Your task to perform on an android device: move a message to another label in the gmail app Image 0: 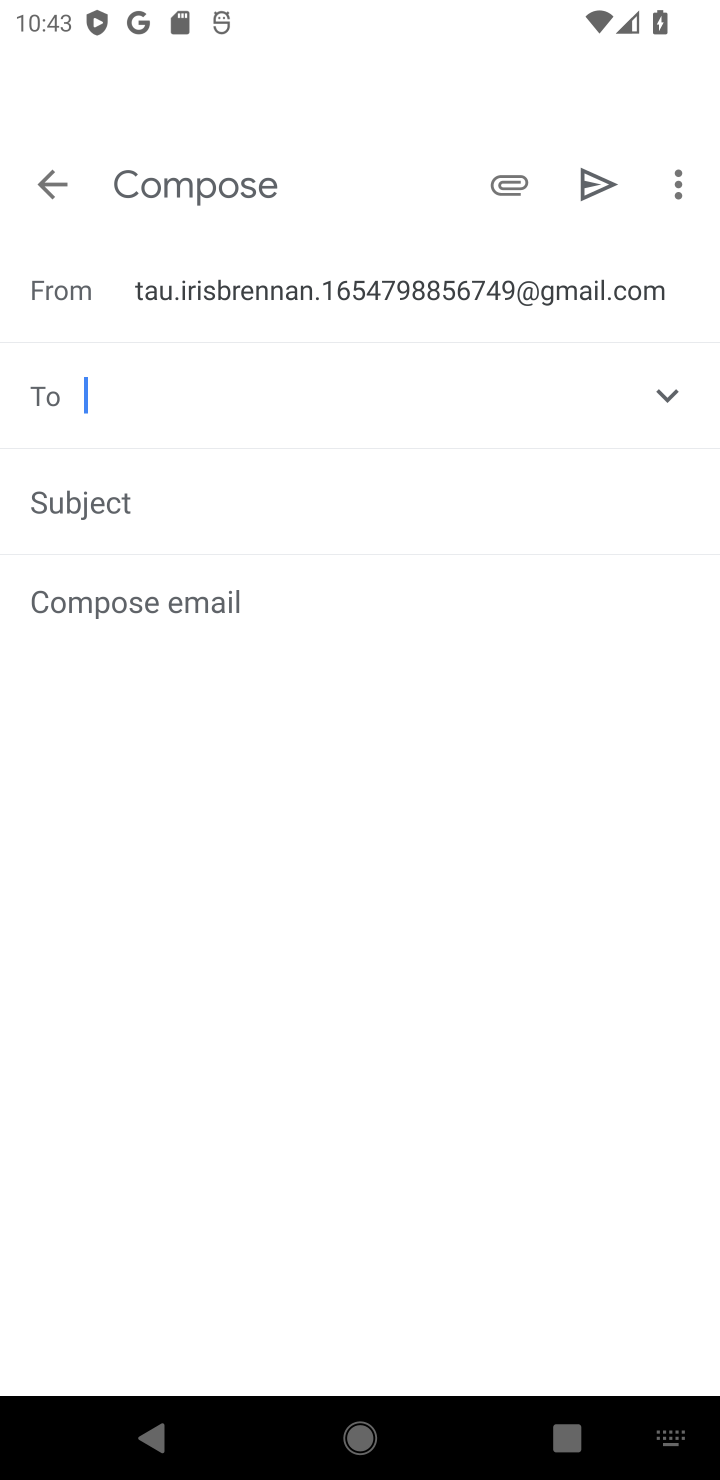
Step 0: press home button
Your task to perform on an android device: move a message to another label in the gmail app Image 1: 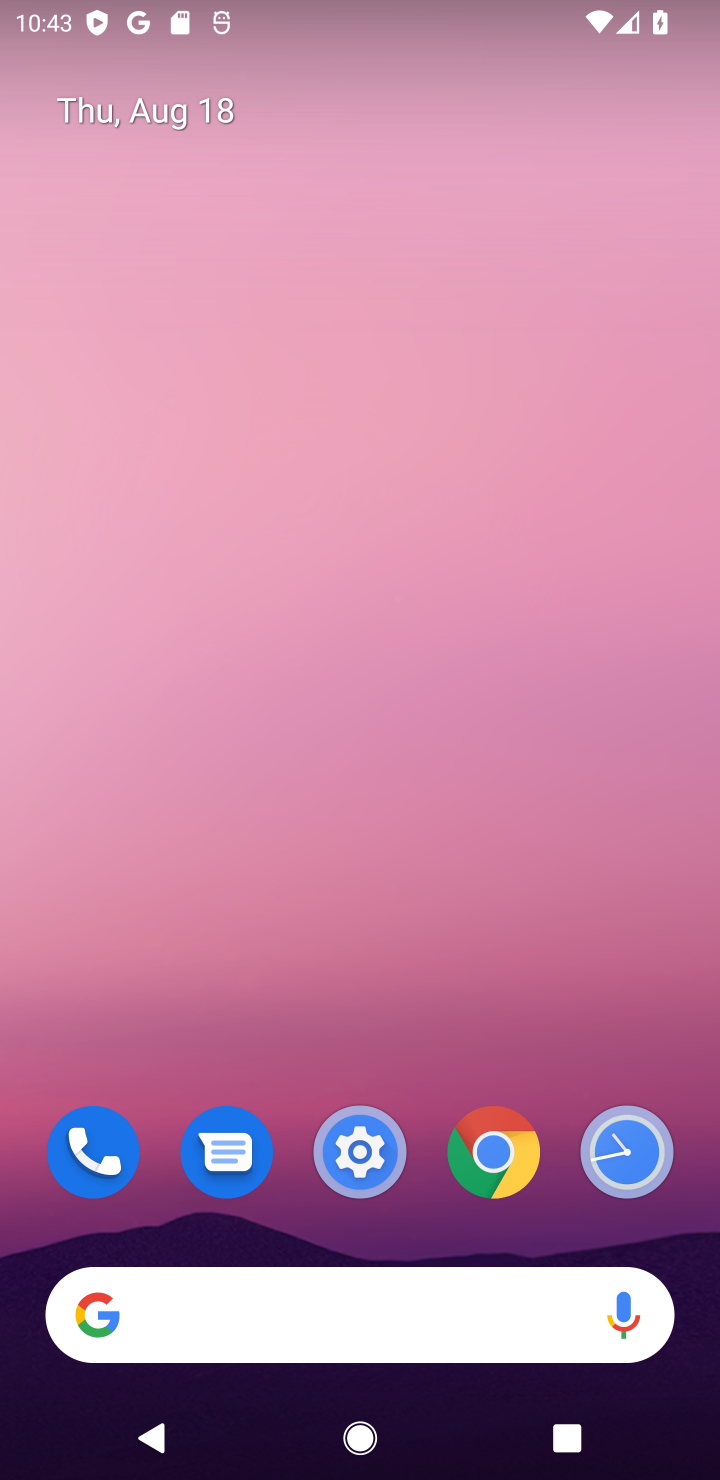
Step 1: drag from (461, 824) to (568, 2)
Your task to perform on an android device: move a message to another label in the gmail app Image 2: 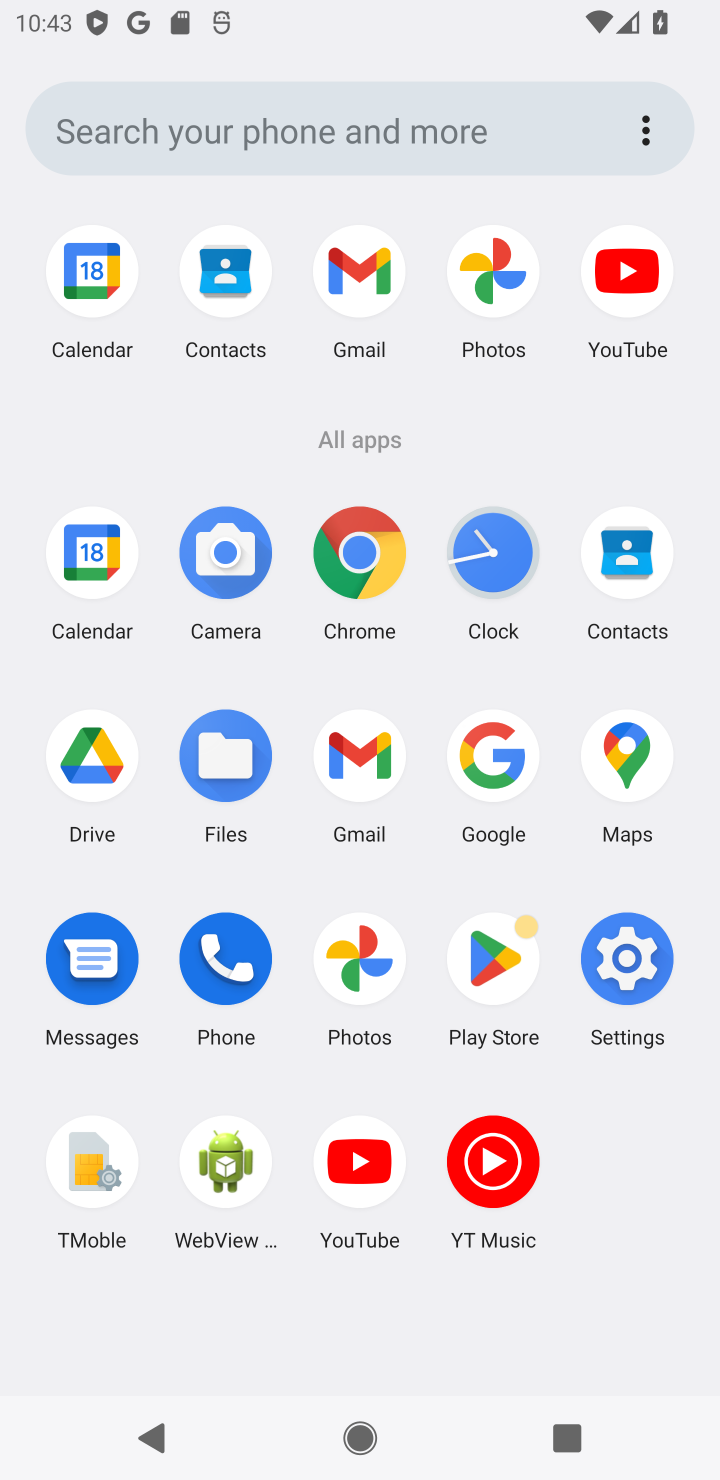
Step 2: click (374, 269)
Your task to perform on an android device: move a message to another label in the gmail app Image 3: 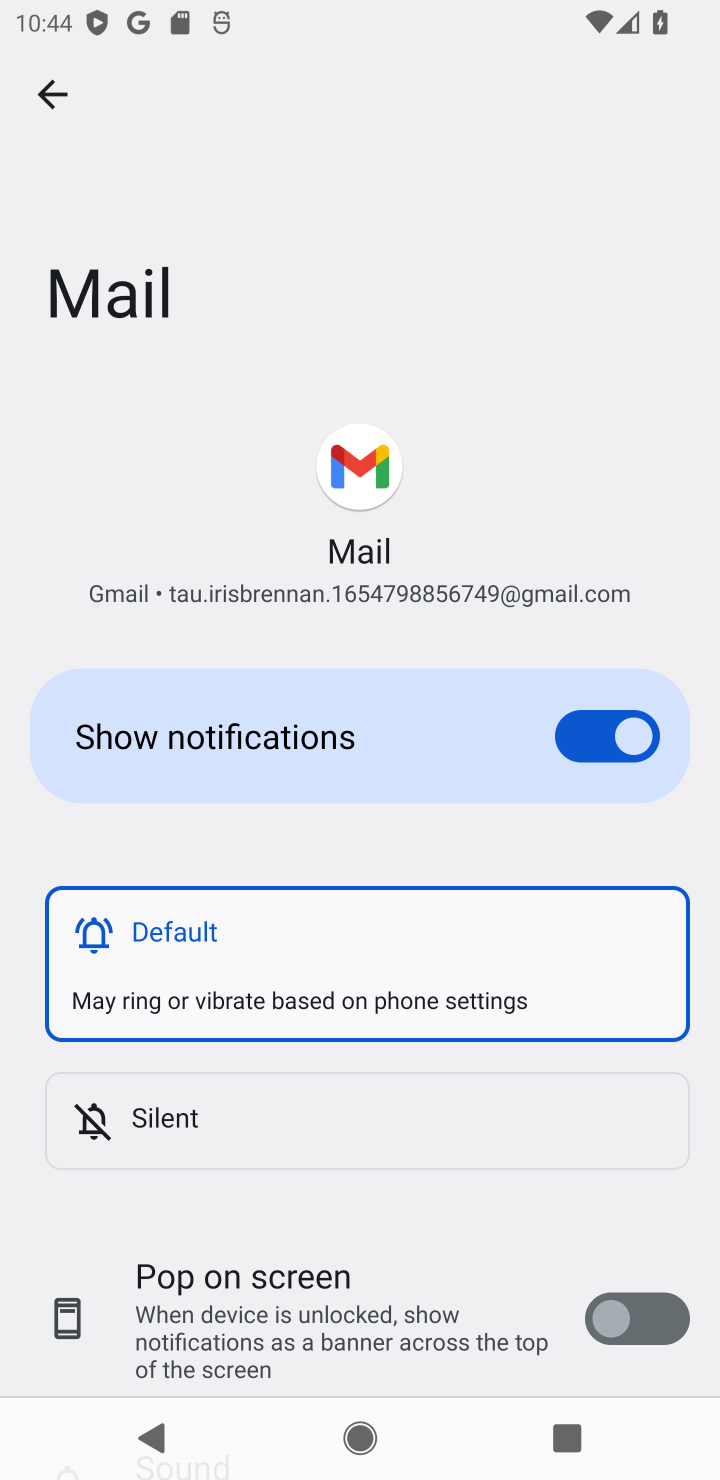
Step 3: click (56, 94)
Your task to perform on an android device: move a message to another label in the gmail app Image 4: 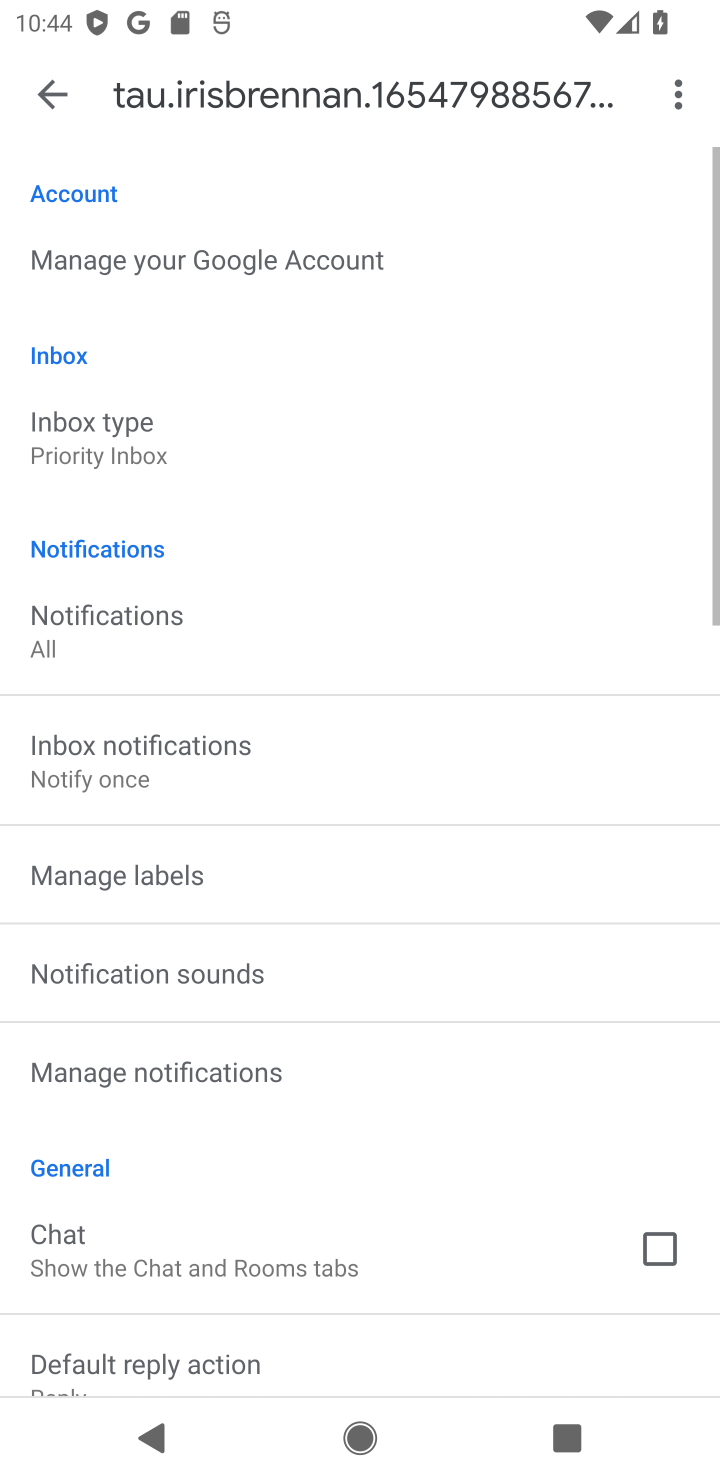
Step 4: click (56, 94)
Your task to perform on an android device: move a message to another label in the gmail app Image 5: 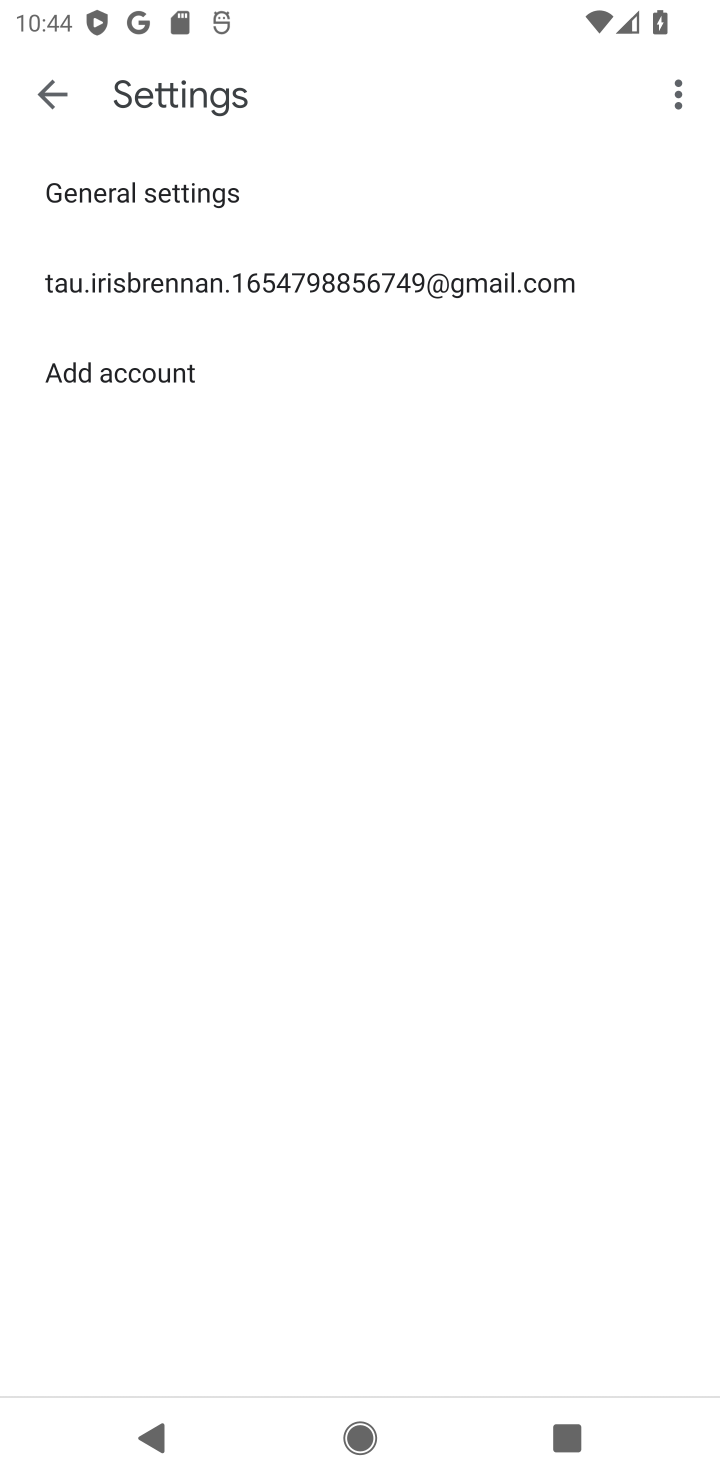
Step 5: click (56, 94)
Your task to perform on an android device: move a message to another label in the gmail app Image 6: 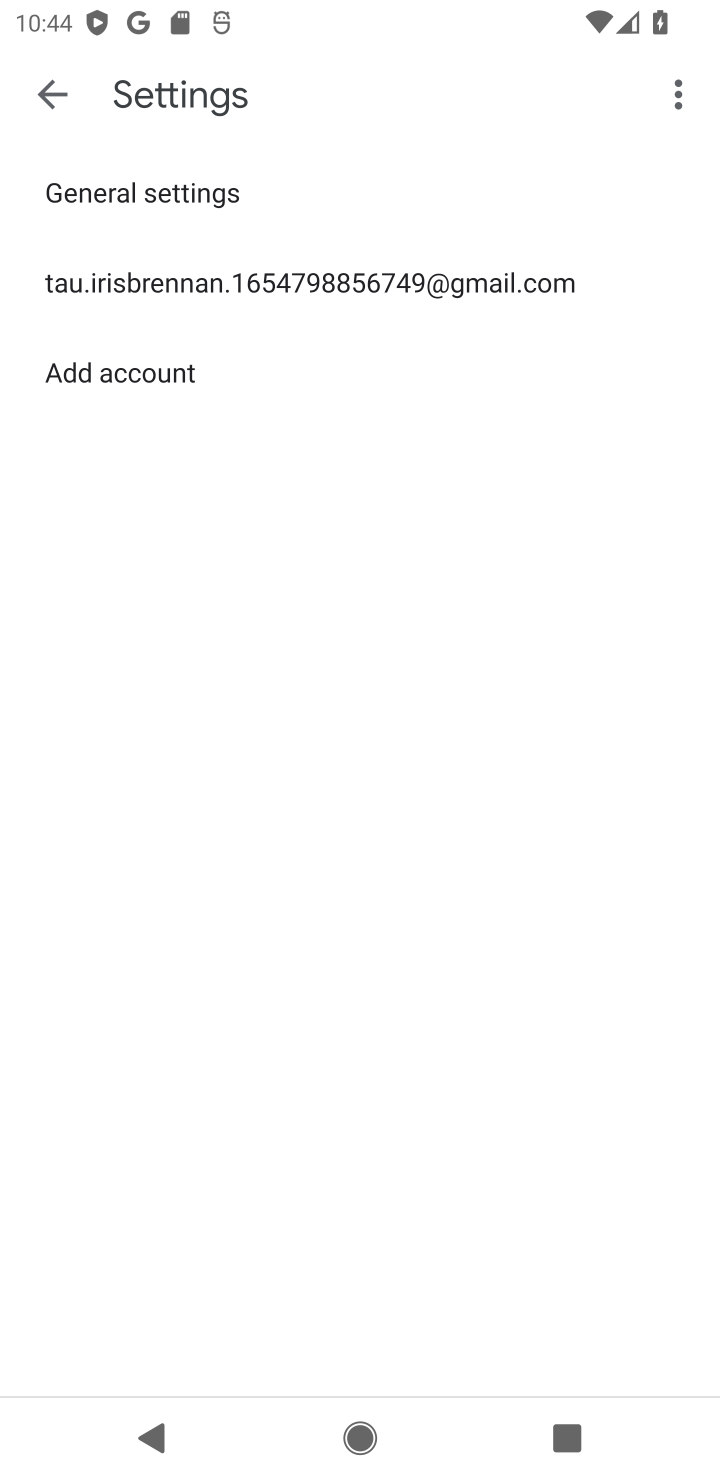
Step 6: click (49, 84)
Your task to perform on an android device: move a message to another label in the gmail app Image 7: 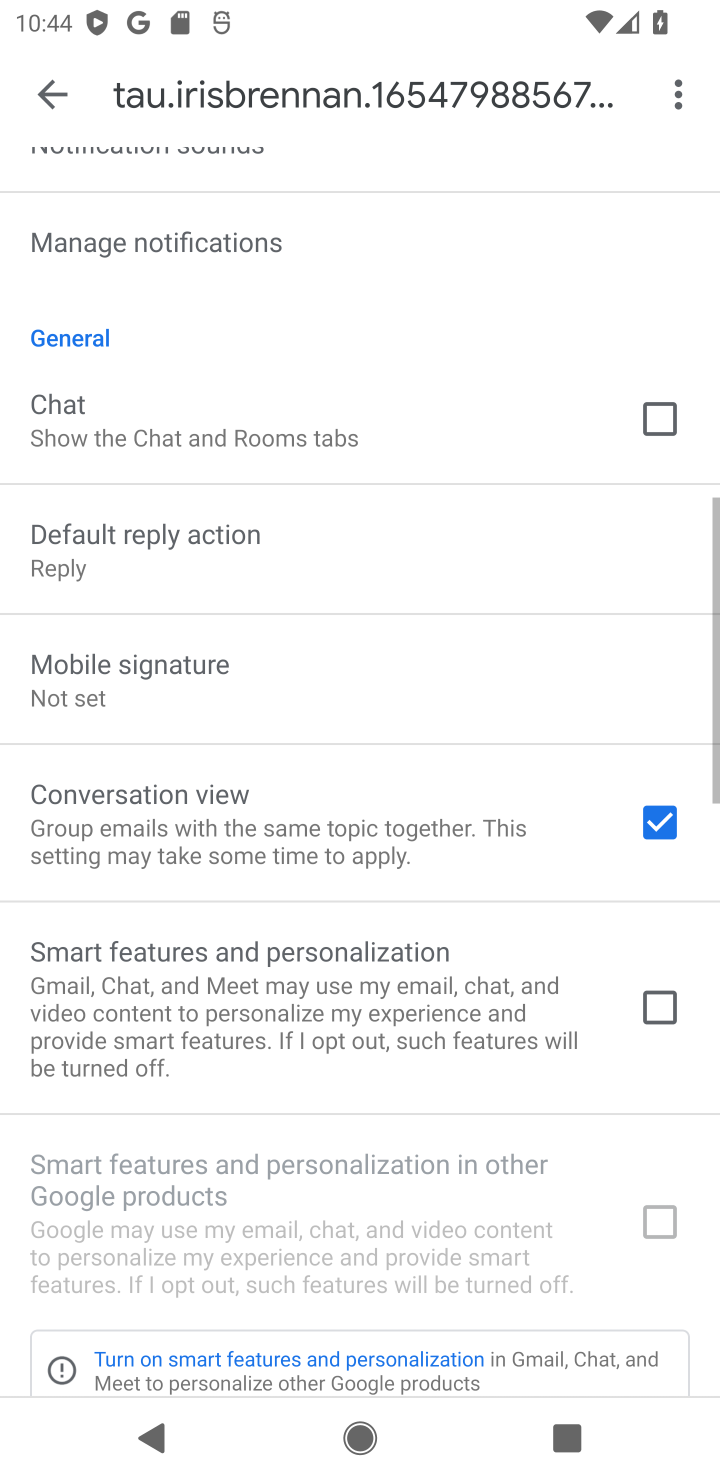
Step 7: click (49, 91)
Your task to perform on an android device: move a message to another label in the gmail app Image 8: 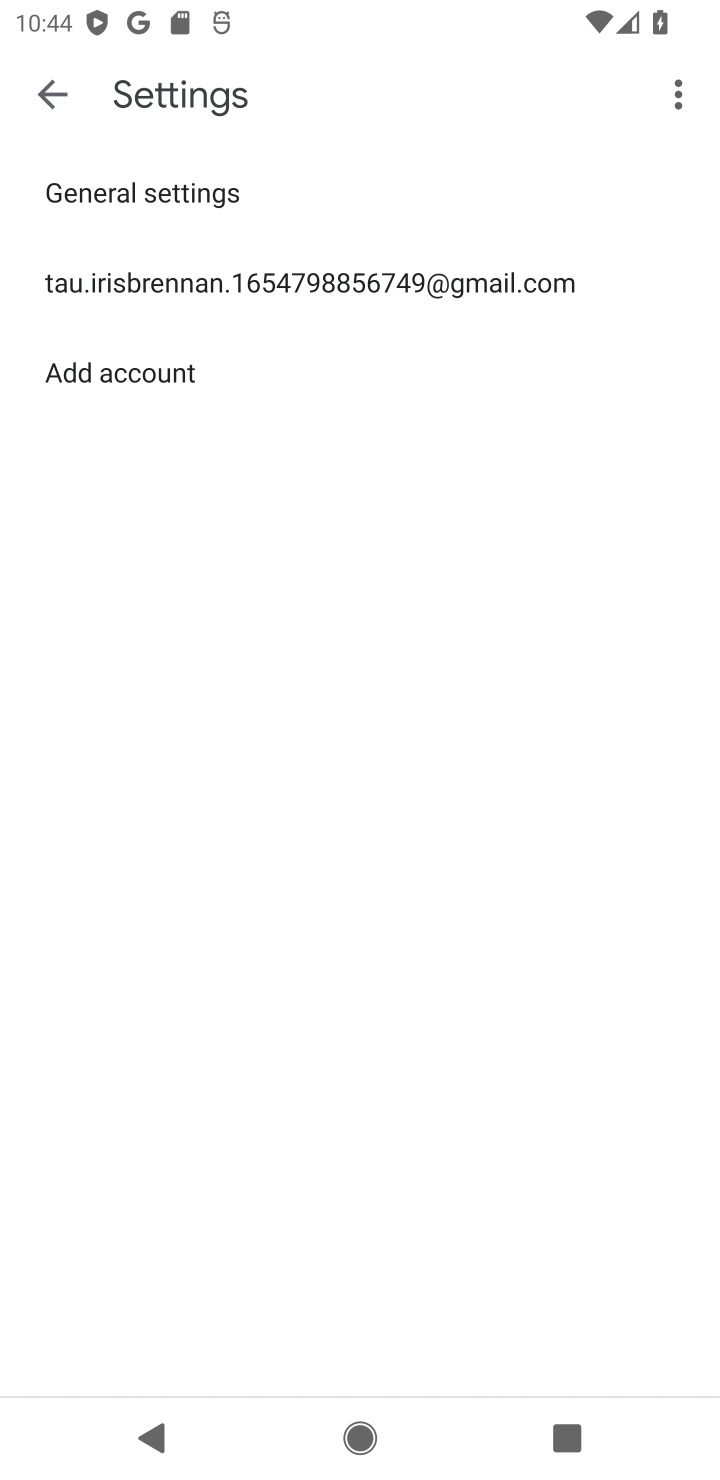
Step 8: click (54, 86)
Your task to perform on an android device: move a message to another label in the gmail app Image 9: 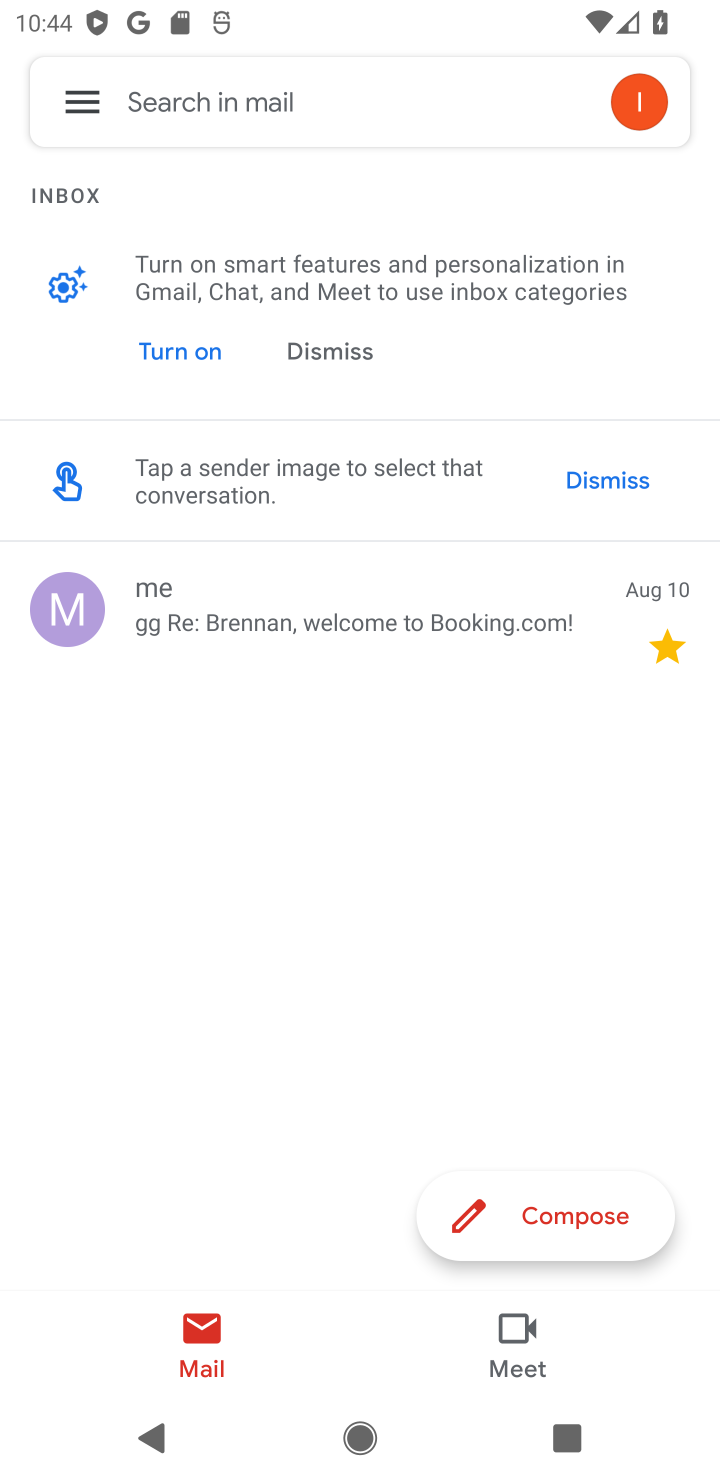
Step 9: click (312, 613)
Your task to perform on an android device: move a message to another label in the gmail app Image 10: 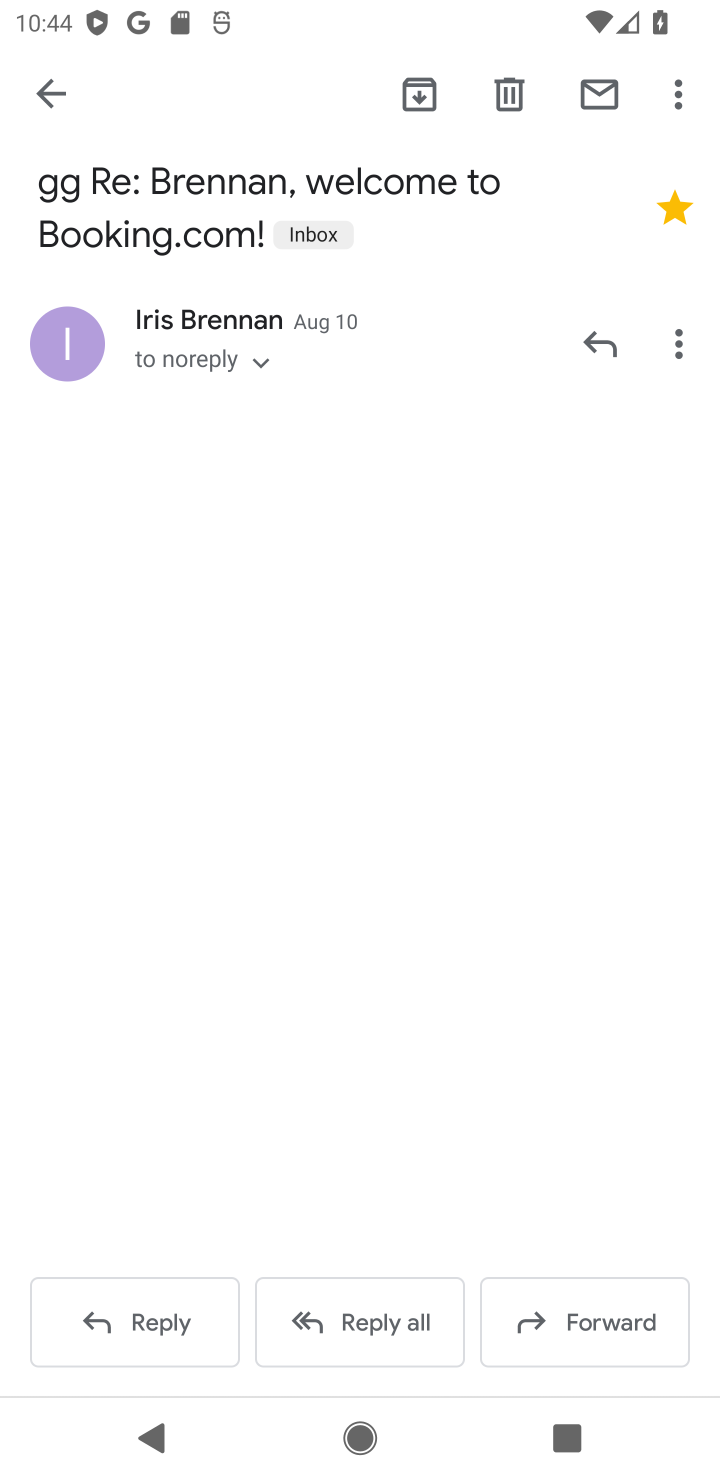
Step 10: click (683, 97)
Your task to perform on an android device: move a message to another label in the gmail app Image 11: 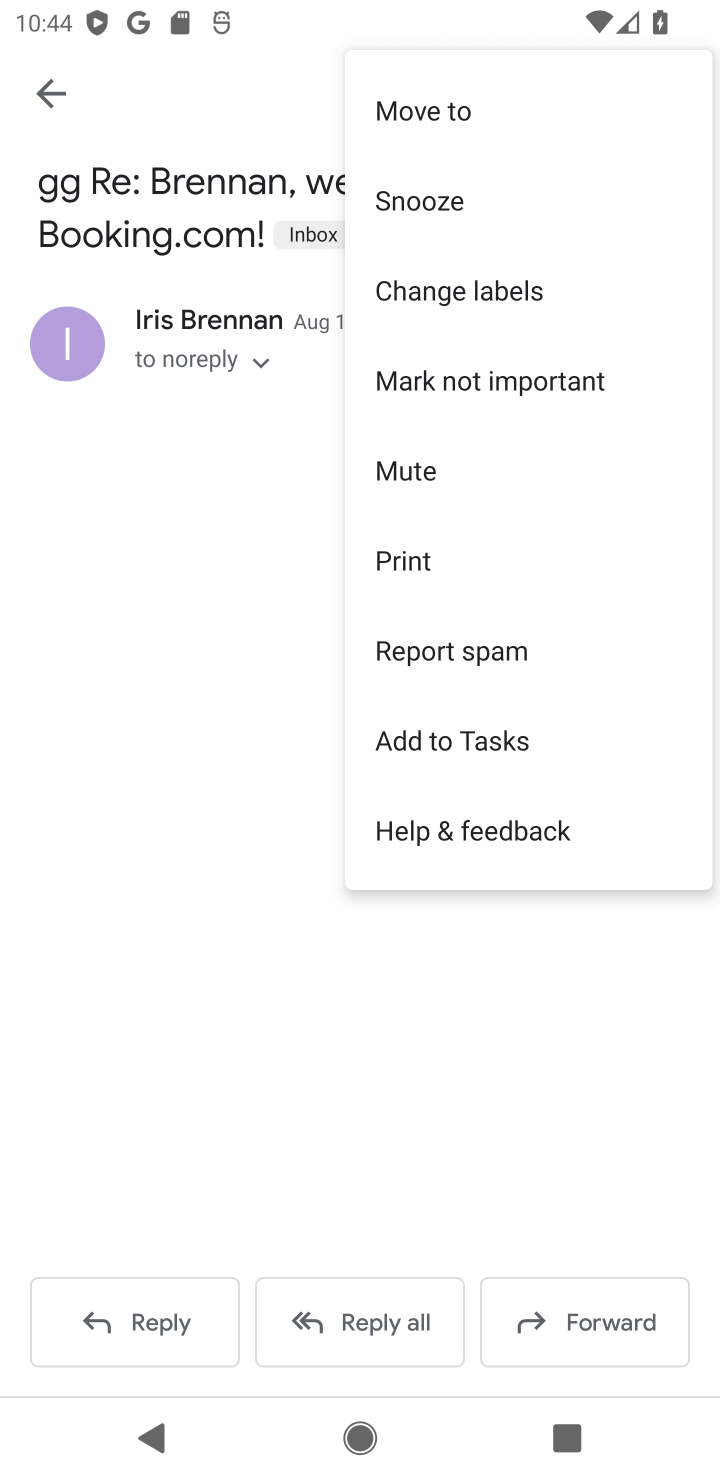
Step 11: click (478, 387)
Your task to perform on an android device: move a message to another label in the gmail app Image 12: 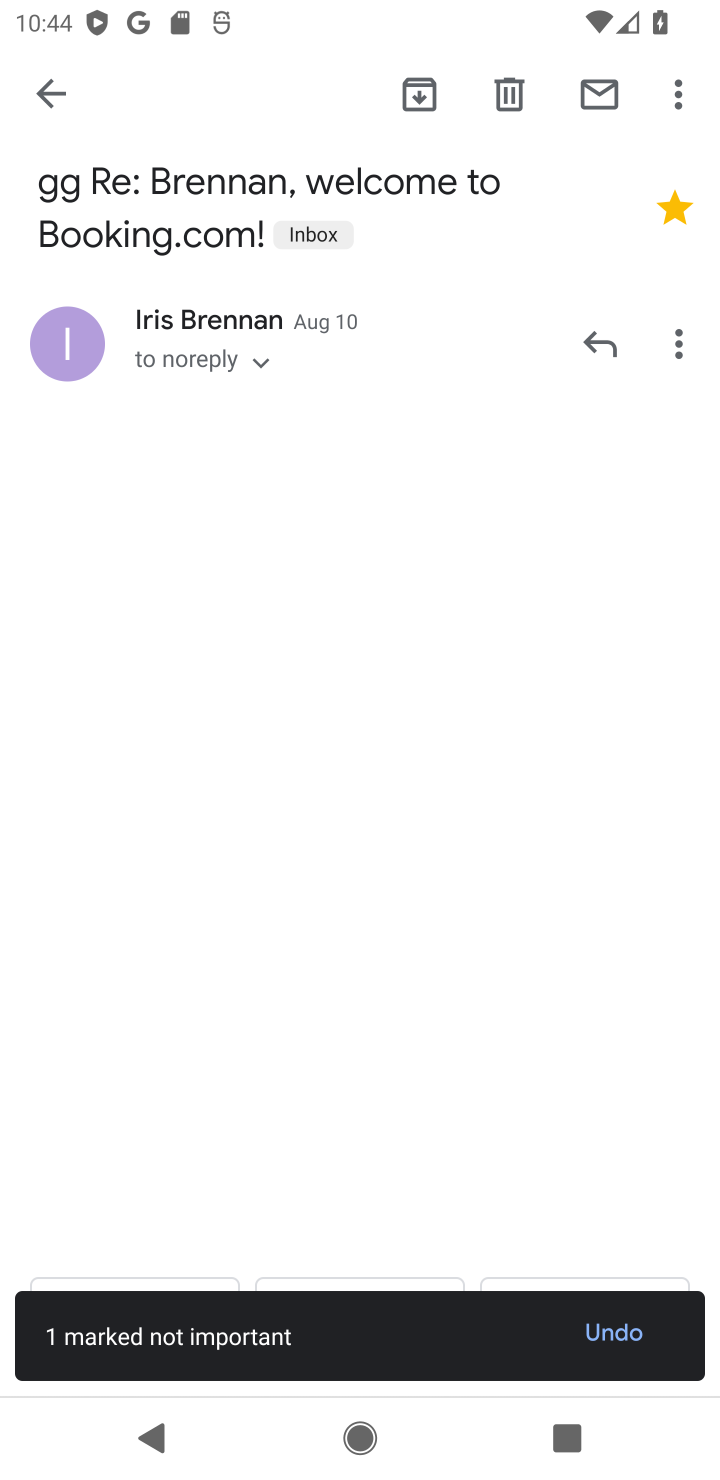
Step 12: task complete